Your task to perform on an android device: open app "Messenger Lite" (install if not already installed) Image 0: 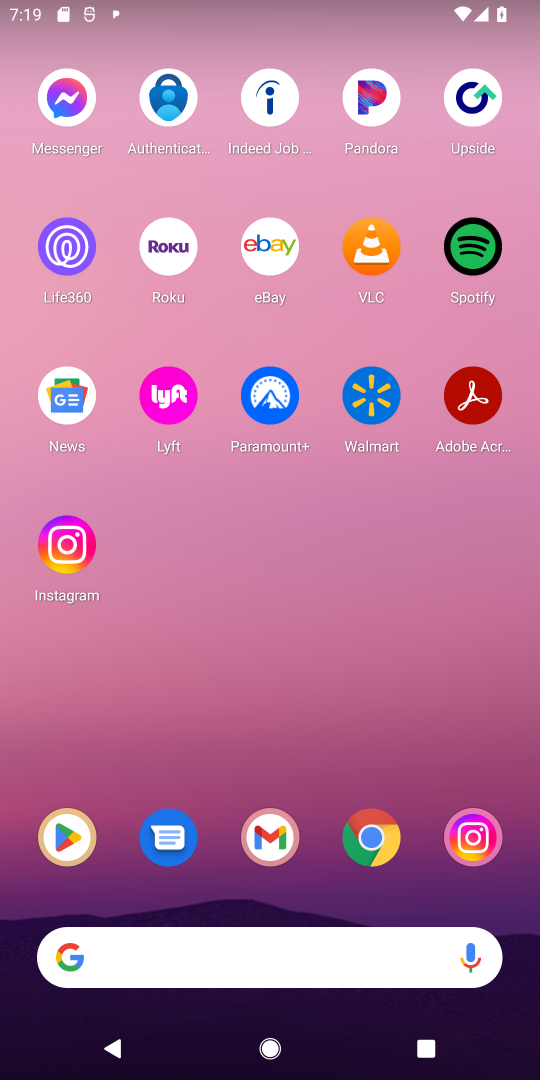
Step 0: click (75, 840)
Your task to perform on an android device: open app "Messenger Lite" (install if not already installed) Image 1: 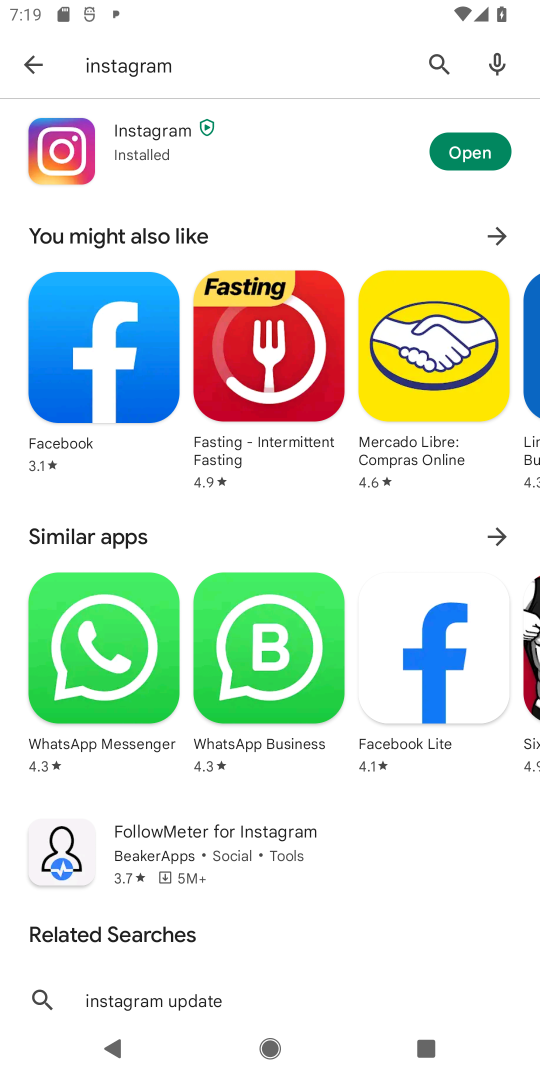
Step 1: click (444, 65)
Your task to perform on an android device: open app "Messenger Lite" (install if not already installed) Image 2: 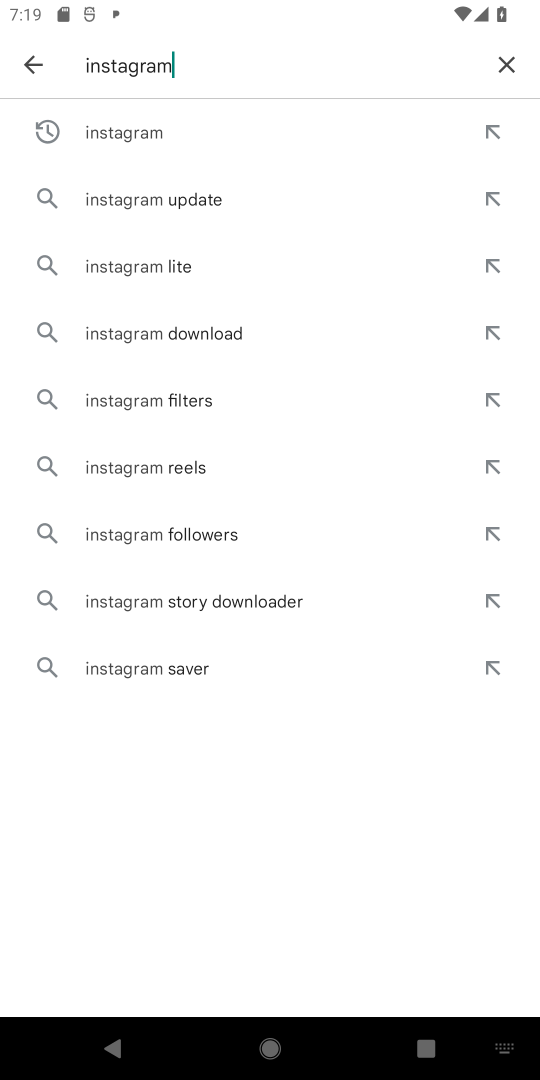
Step 2: click (512, 67)
Your task to perform on an android device: open app "Messenger Lite" (install if not already installed) Image 3: 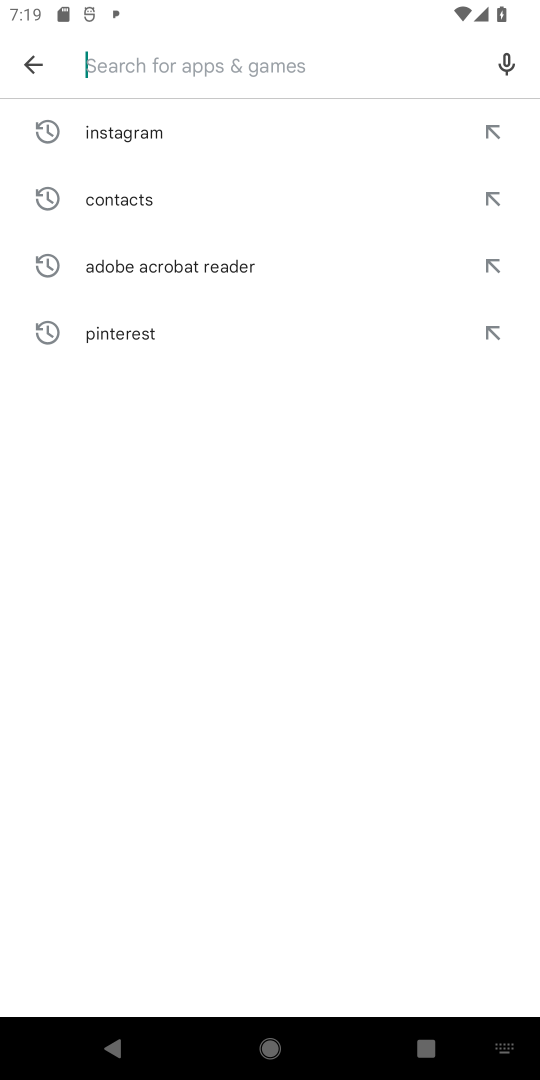
Step 3: type "Messenger Lite"
Your task to perform on an android device: open app "Messenger Lite" (install if not already installed) Image 4: 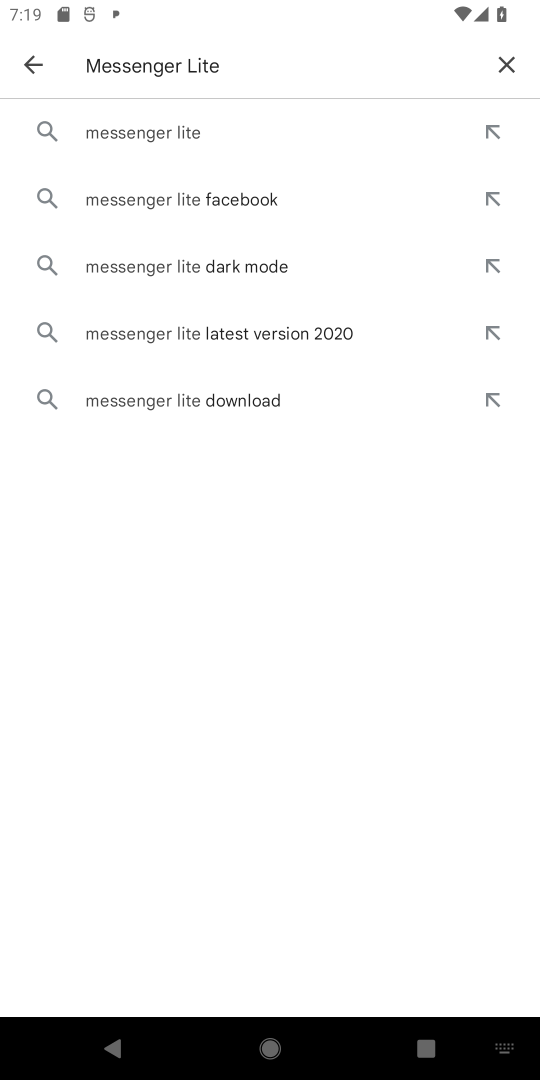
Step 4: click (176, 142)
Your task to perform on an android device: open app "Messenger Lite" (install if not already installed) Image 5: 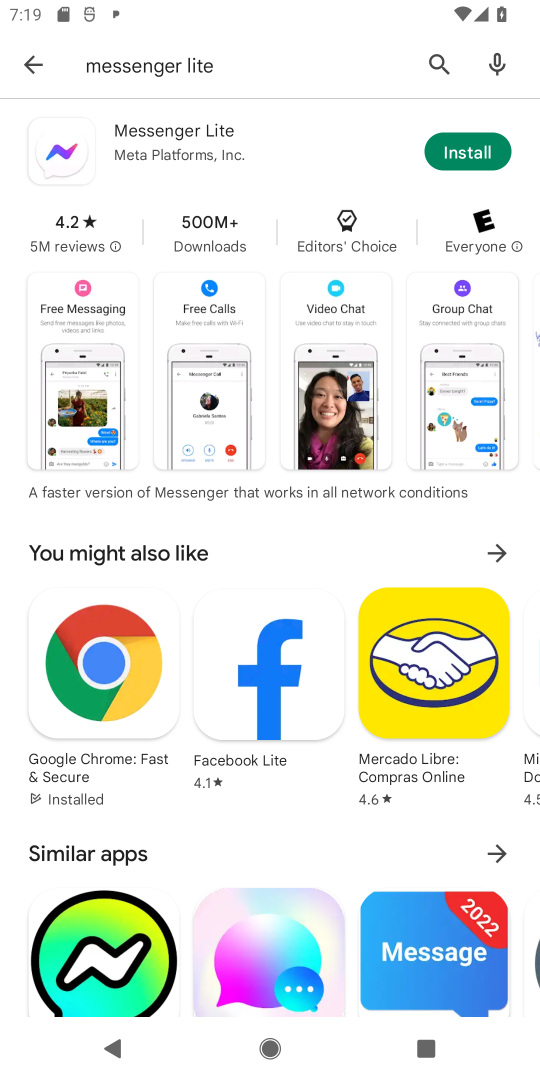
Step 5: click (459, 153)
Your task to perform on an android device: open app "Messenger Lite" (install if not already installed) Image 6: 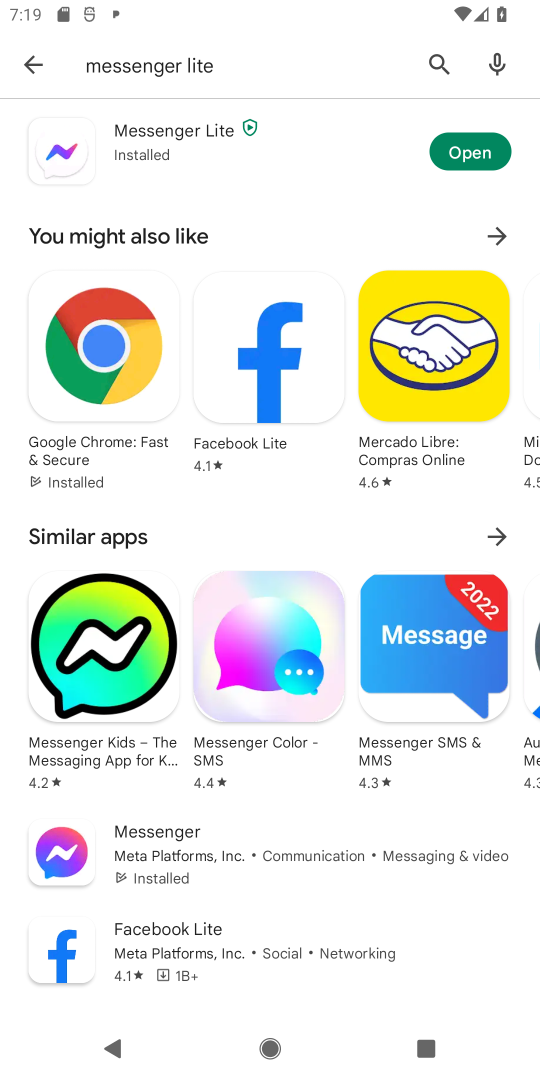
Step 6: click (452, 154)
Your task to perform on an android device: open app "Messenger Lite" (install if not already installed) Image 7: 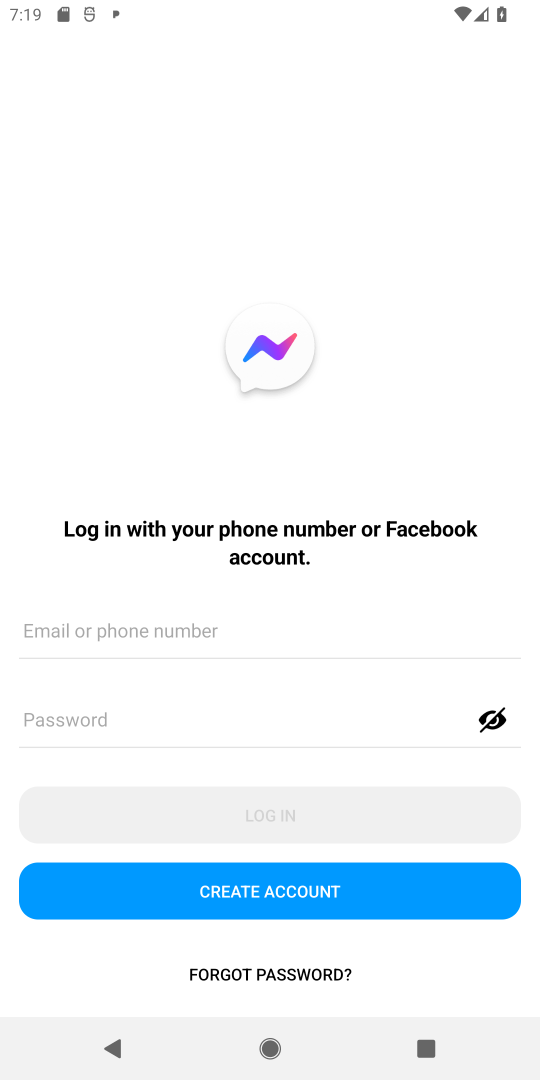
Step 7: task complete